Your task to perform on an android device: turn off improve location accuracy Image 0: 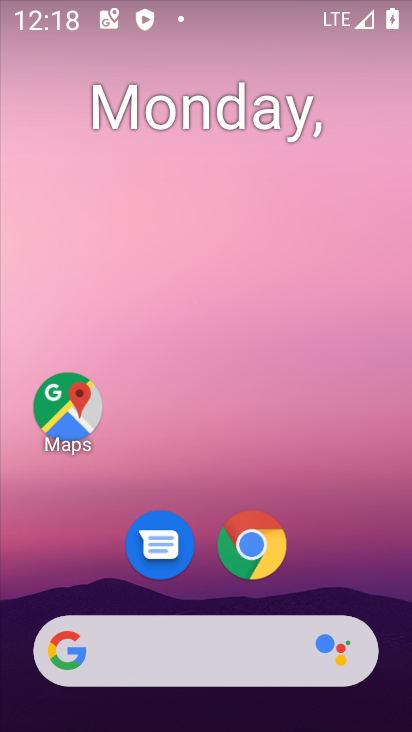
Step 0: drag from (383, 611) to (399, 269)
Your task to perform on an android device: turn off improve location accuracy Image 1: 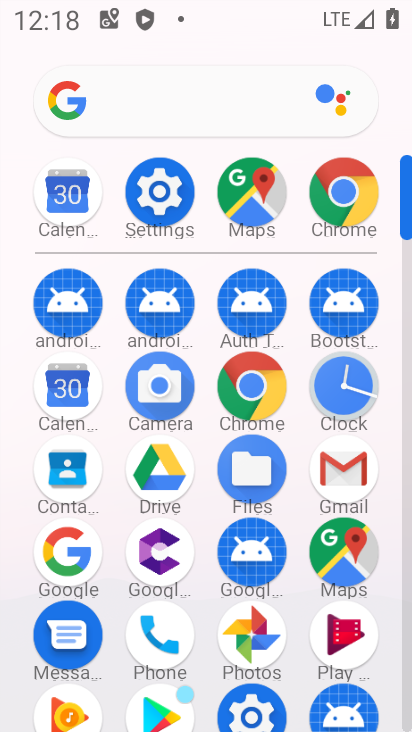
Step 1: click (249, 715)
Your task to perform on an android device: turn off improve location accuracy Image 2: 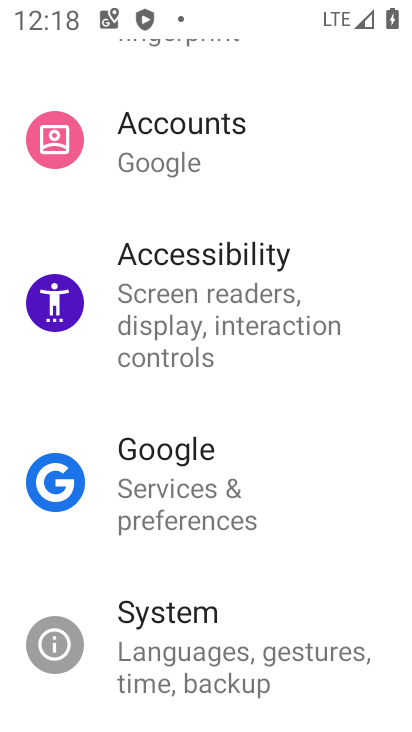
Step 2: drag from (362, 247) to (351, 368)
Your task to perform on an android device: turn off improve location accuracy Image 3: 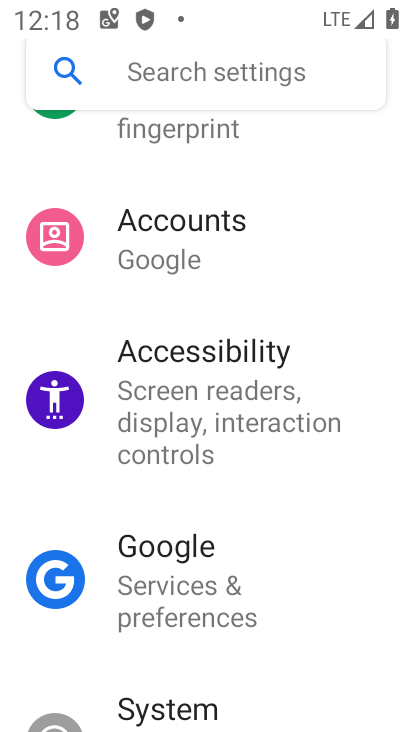
Step 3: drag from (360, 255) to (355, 371)
Your task to perform on an android device: turn off improve location accuracy Image 4: 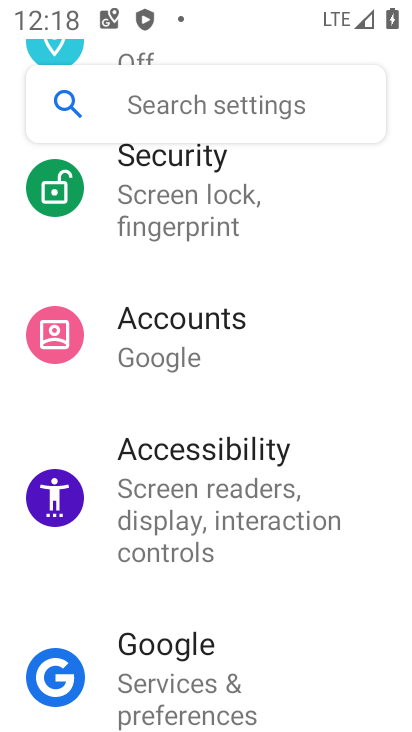
Step 4: drag from (358, 251) to (346, 361)
Your task to perform on an android device: turn off improve location accuracy Image 5: 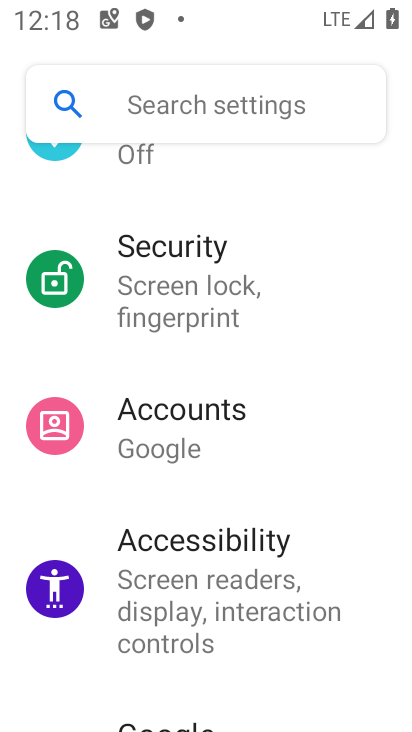
Step 5: drag from (348, 268) to (352, 380)
Your task to perform on an android device: turn off improve location accuracy Image 6: 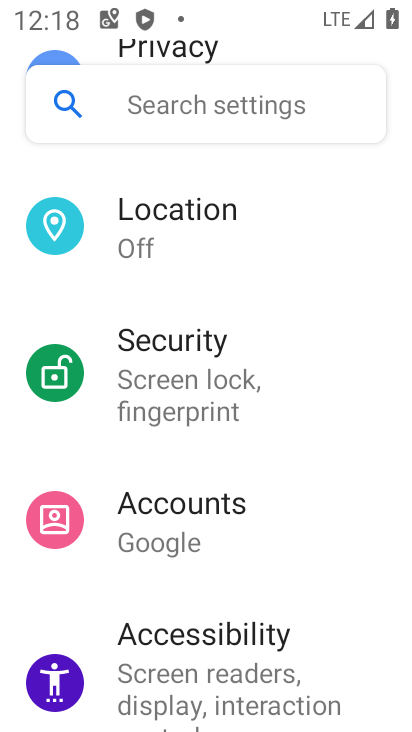
Step 6: drag from (351, 283) to (325, 484)
Your task to perform on an android device: turn off improve location accuracy Image 7: 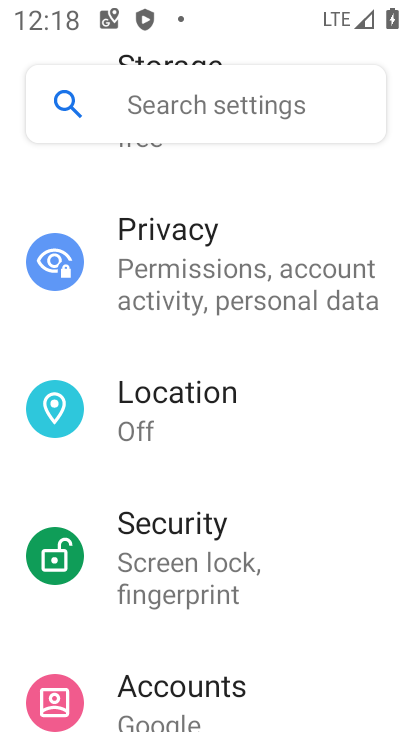
Step 7: drag from (329, 354) to (330, 455)
Your task to perform on an android device: turn off improve location accuracy Image 8: 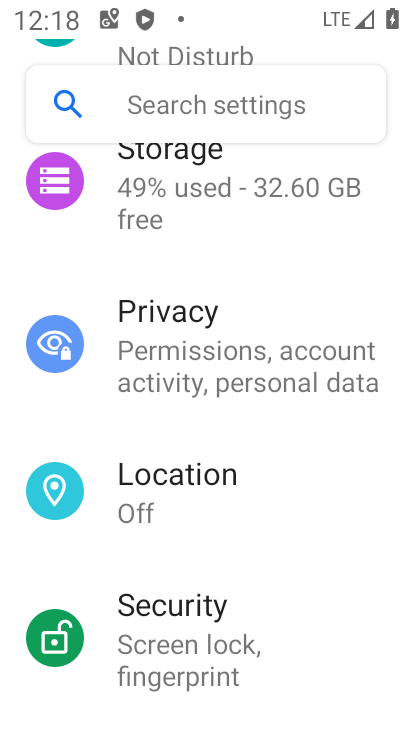
Step 8: click (204, 483)
Your task to perform on an android device: turn off improve location accuracy Image 9: 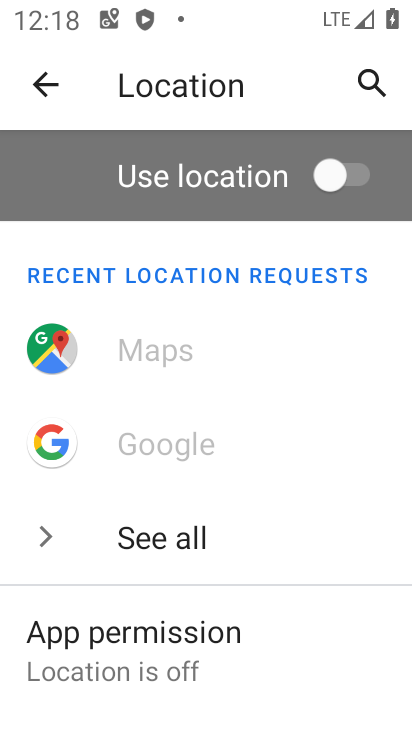
Step 9: drag from (302, 532) to (320, 402)
Your task to perform on an android device: turn off improve location accuracy Image 10: 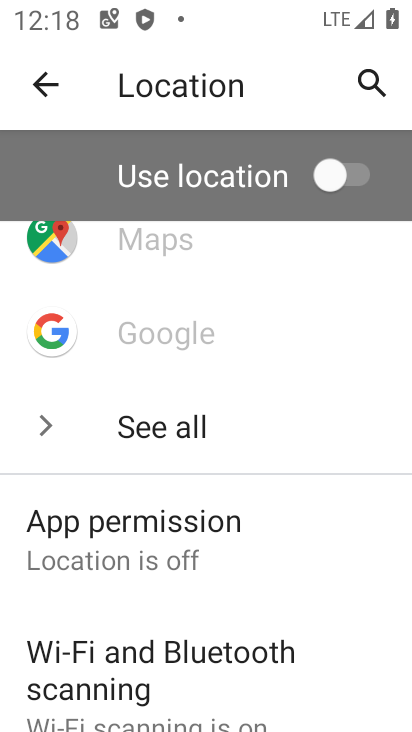
Step 10: drag from (339, 593) to (345, 440)
Your task to perform on an android device: turn off improve location accuracy Image 11: 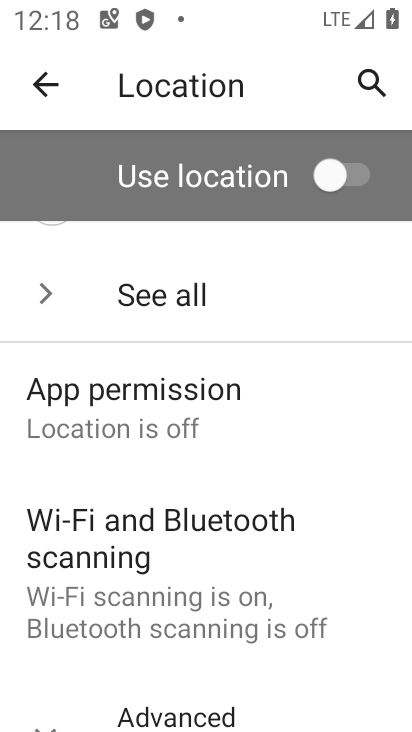
Step 11: drag from (350, 548) to (349, 484)
Your task to perform on an android device: turn off improve location accuracy Image 12: 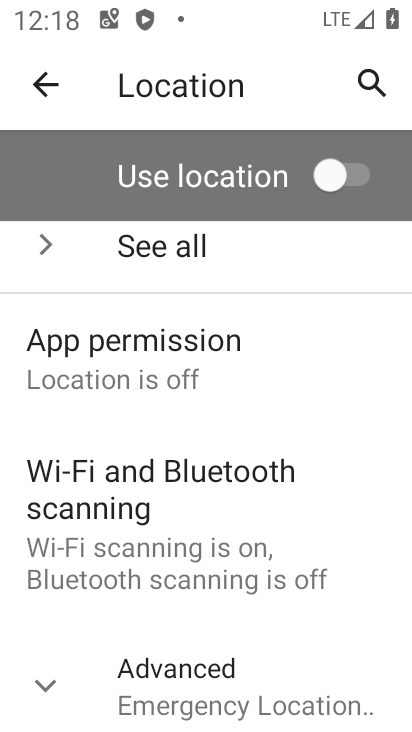
Step 12: drag from (330, 647) to (362, 409)
Your task to perform on an android device: turn off improve location accuracy Image 13: 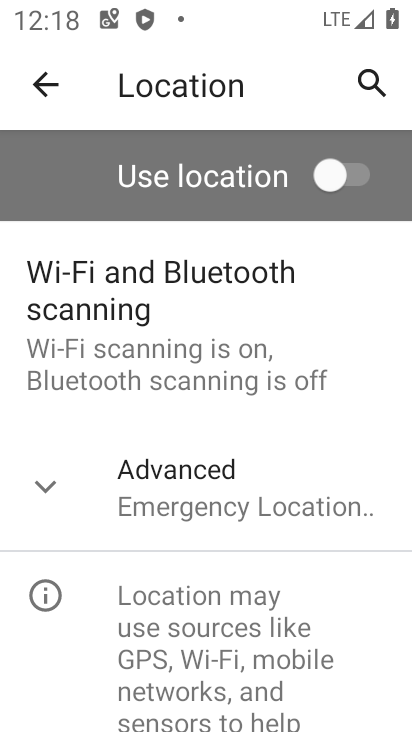
Step 13: click (309, 519)
Your task to perform on an android device: turn off improve location accuracy Image 14: 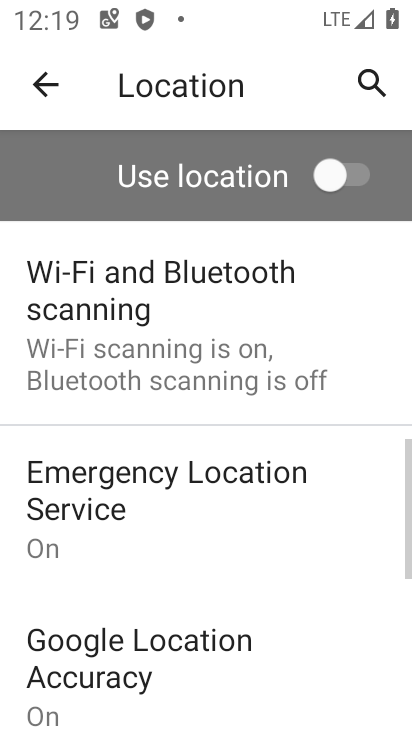
Step 14: drag from (333, 654) to (359, 466)
Your task to perform on an android device: turn off improve location accuracy Image 15: 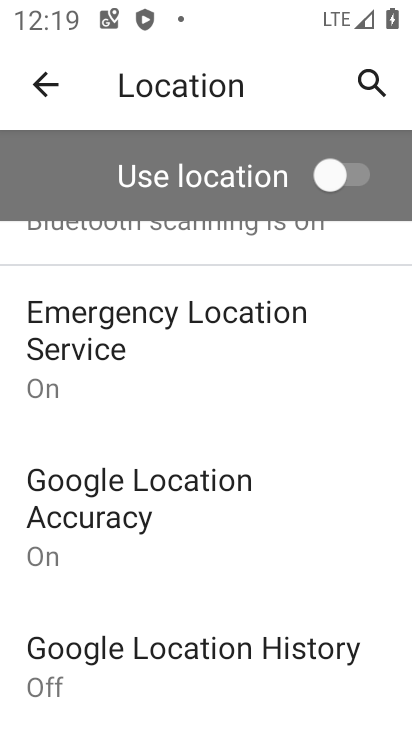
Step 15: click (150, 508)
Your task to perform on an android device: turn off improve location accuracy Image 16: 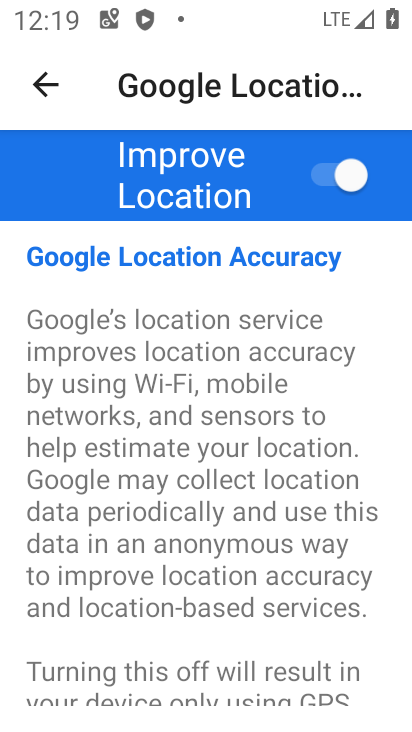
Step 16: click (331, 184)
Your task to perform on an android device: turn off improve location accuracy Image 17: 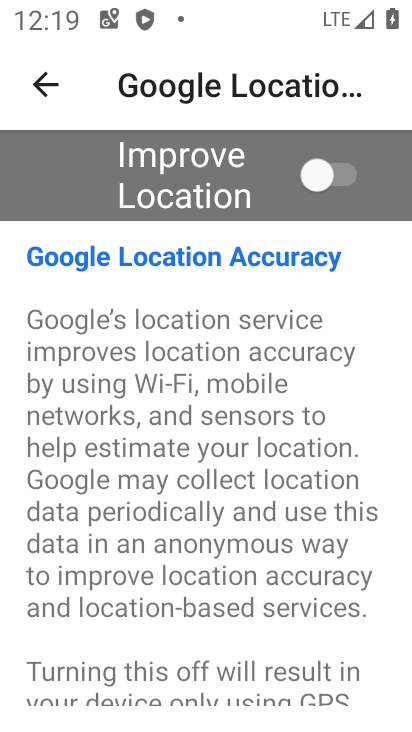
Step 17: task complete